Your task to perform on an android device: Search for Mexican restaurants on Maps Image 0: 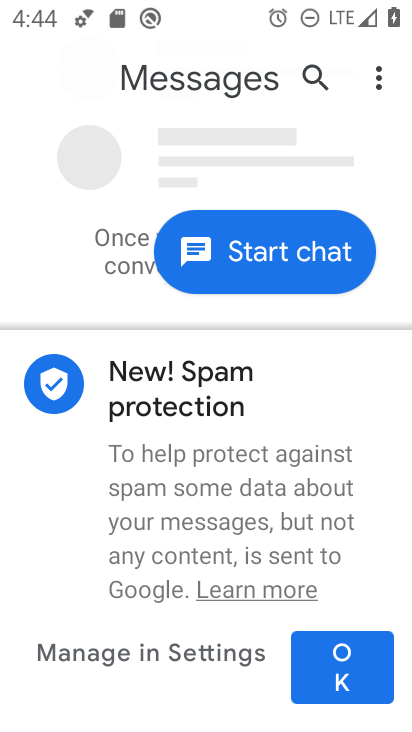
Step 0: press back button
Your task to perform on an android device: Search for Mexican restaurants on Maps Image 1: 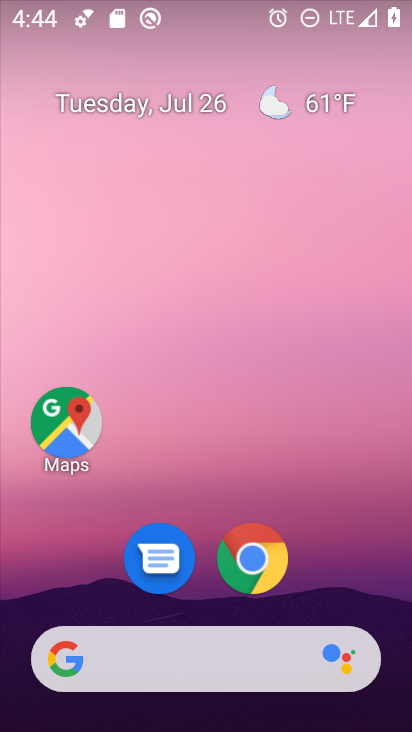
Step 1: click (59, 423)
Your task to perform on an android device: Search for Mexican restaurants on Maps Image 2: 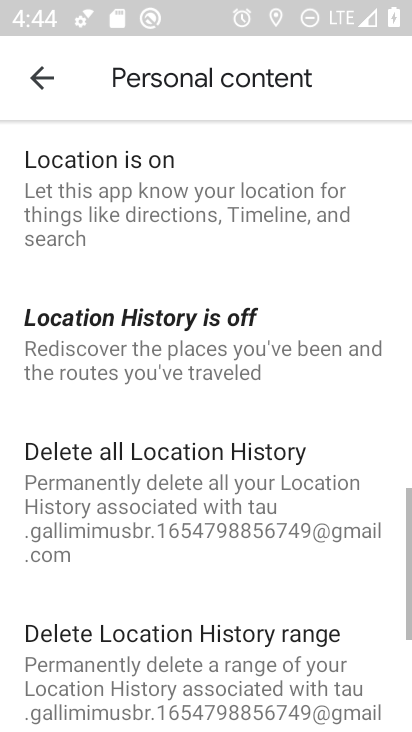
Step 2: click (43, 73)
Your task to perform on an android device: Search for Mexican restaurants on Maps Image 3: 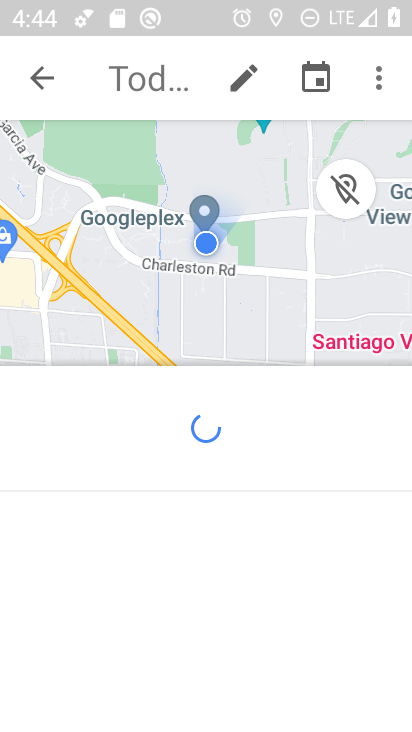
Step 3: click (40, 70)
Your task to perform on an android device: Search for Mexican restaurants on Maps Image 4: 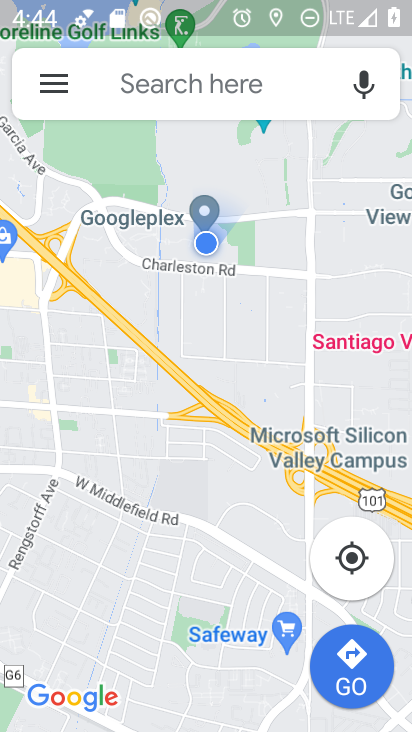
Step 4: click (167, 77)
Your task to perform on an android device: Search for Mexican restaurants on Maps Image 5: 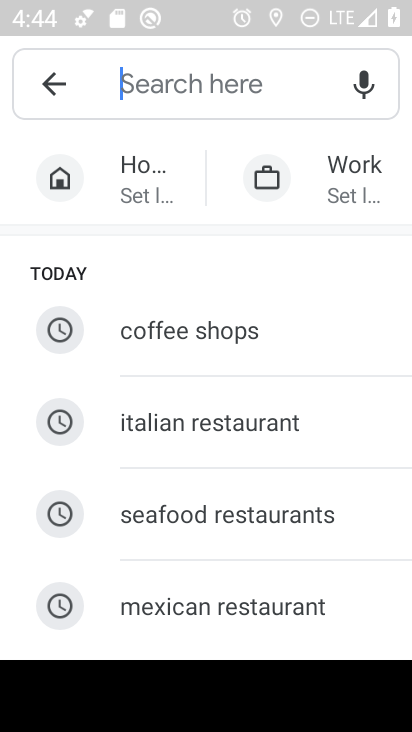
Step 5: click (175, 613)
Your task to perform on an android device: Search for Mexican restaurants on Maps Image 6: 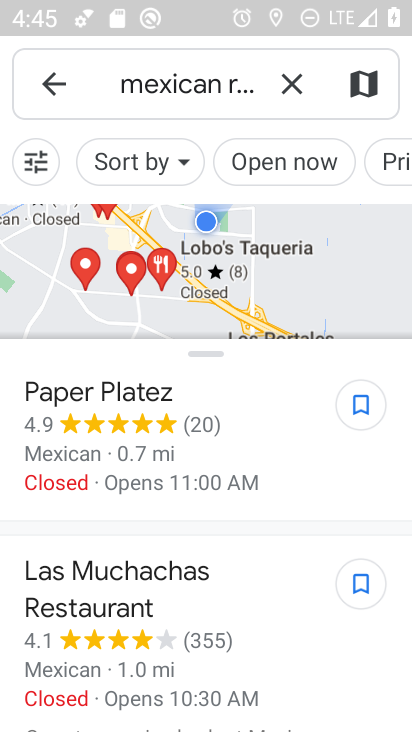
Step 6: task complete